Your task to perform on an android device: search for starred emails in the gmail app Image 0: 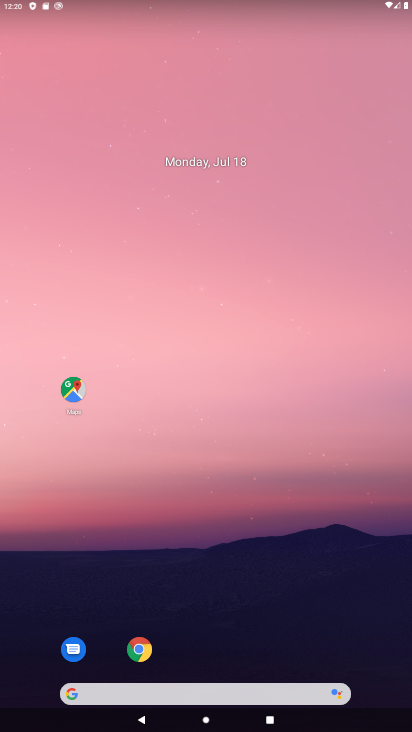
Step 0: drag from (268, 522) to (347, 104)
Your task to perform on an android device: search for starred emails in the gmail app Image 1: 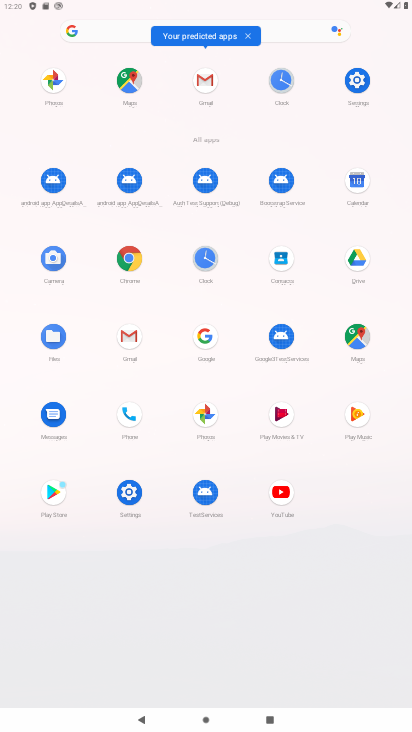
Step 1: click (135, 329)
Your task to perform on an android device: search for starred emails in the gmail app Image 2: 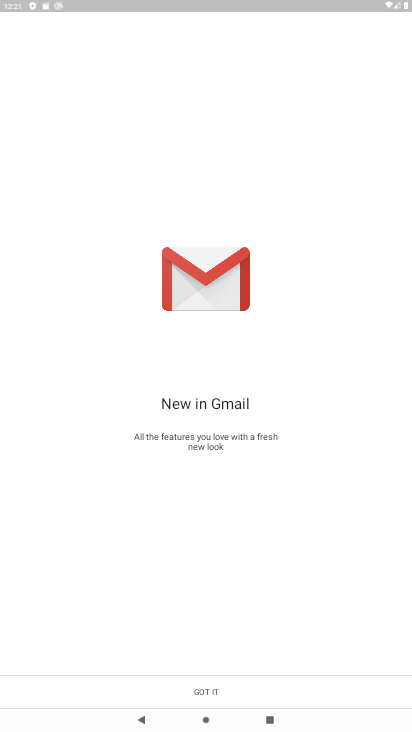
Step 2: click (198, 693)
Your task to perform on an android device: search for starred emails in the gmail app Image 3: 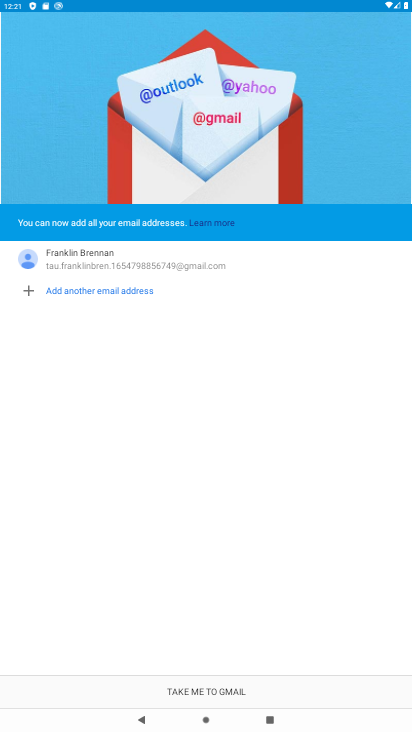
Step 3: click (213, 692)
Your task to perform on an android device: search for starred emails in the gmail app Image 4: 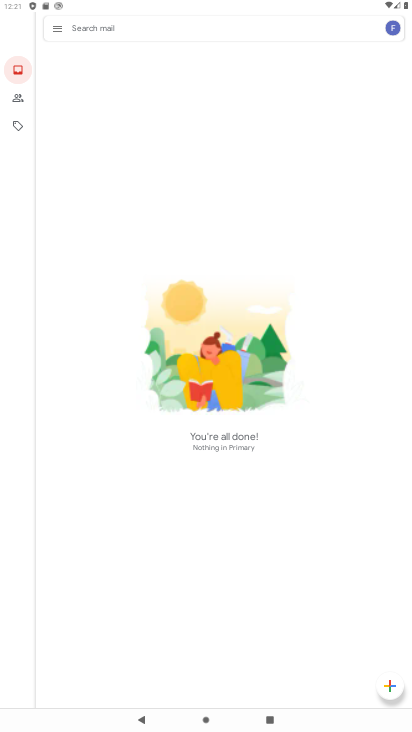
Step 4: click (58, 24)
Your task to perform on an android device: search for starred emails in the gmail app Image 5: 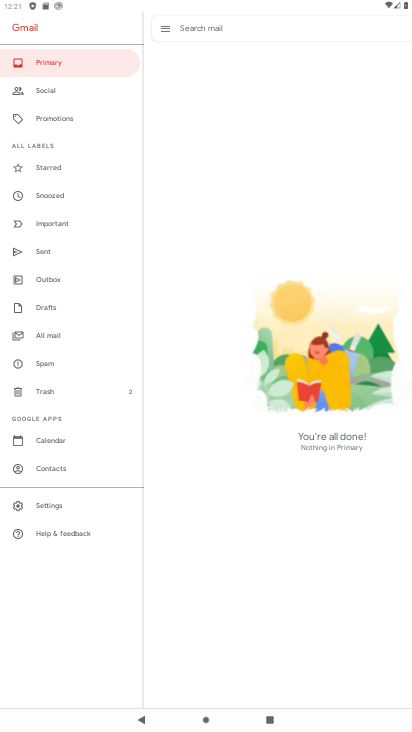
Step 5: click (50, 165)
Your task to perform on an android device: search for starred emails in the gmail app Image 6: 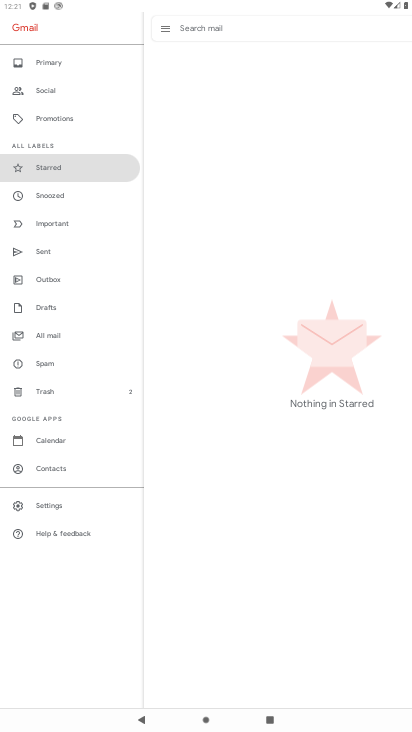
Step 6: task complete